Your task to perform on an android device: Open Android settings Image 0: 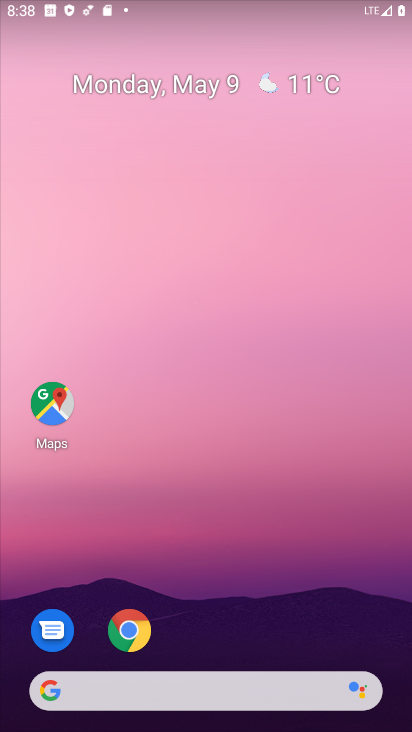
Step 0: drag from (201, 635) to (242, 90)
Your task to perform on an android device: Open Android settings Image 1: 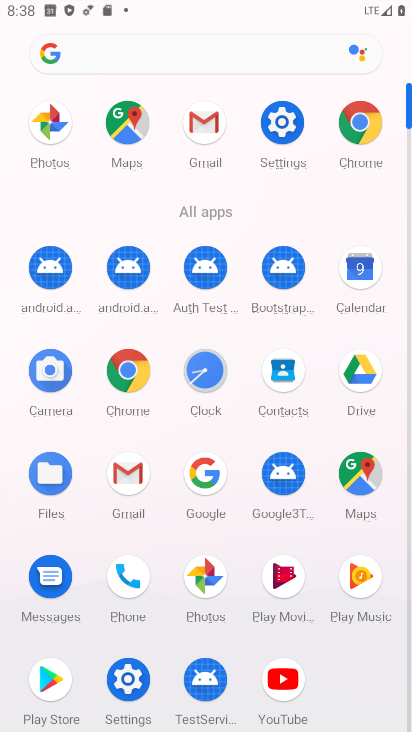
Step 1: click (123, 674)
Your task to perform on an android device: Open Android settings Image 2: 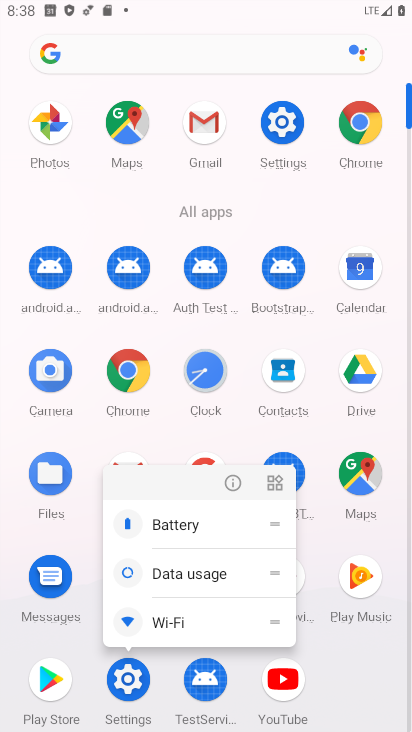
Step 2: click (114, 681)
Your task to perform on an android device: Open Android settings Image 3: 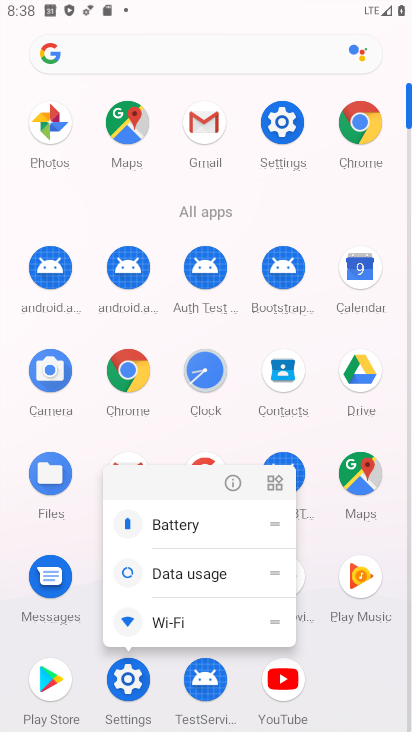
Step 3: click (125, 677)
Your task to perform on an android device: Open Android settings Image 4: 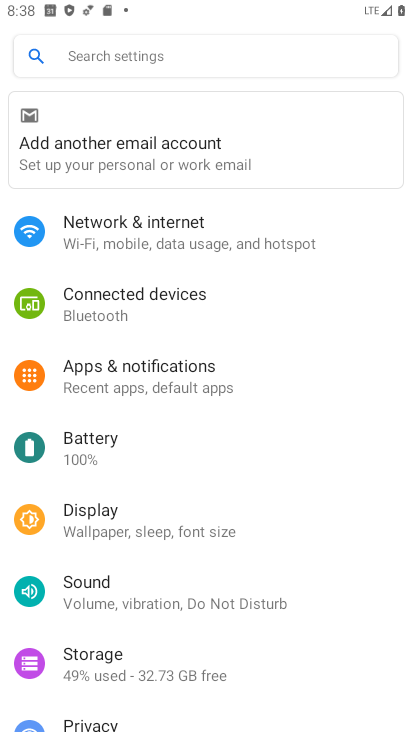
Step 4: task complete